Your task to perform on an android device: Open Google Chrome Image 0: 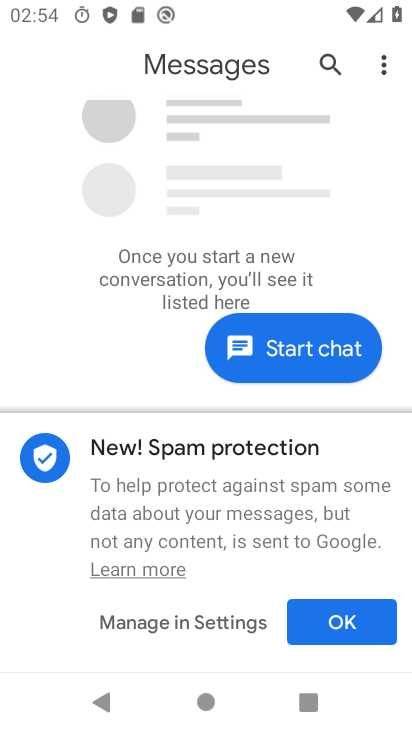
Step 0: press home button
Your task to perform on an android device: Open Google Chrome Image 1: 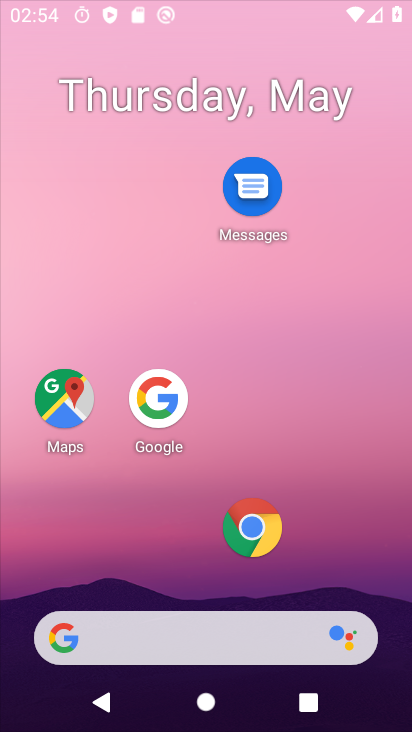
Step 1: drag from (260, 368) to (266, 183)
Your task to perform on an android device: Open Google Chrome Image 2: 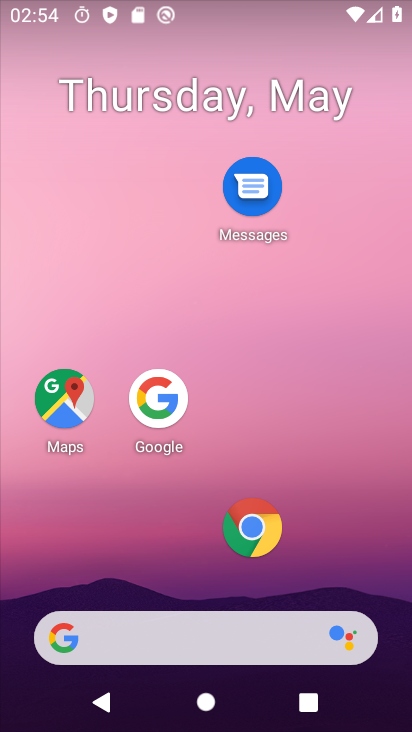
Step 2: drag from (222, 530) to (227, 159)
Your task to perform on an android device: Open Google Chrome Image 3: 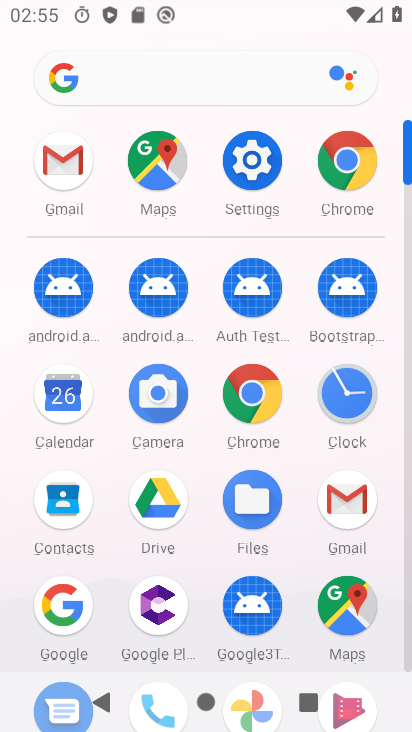
Step 3: drag from (195, 574) to (176, 237)
Your task to perform on an android device: Open Google Chrome Image 4: 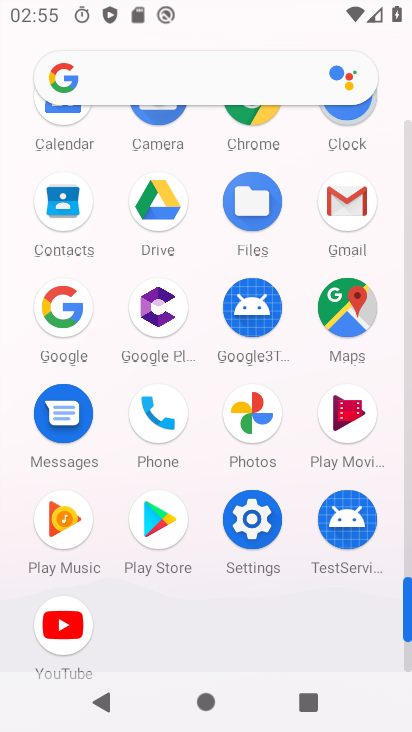
Step 4: click (251, 123)
Your task to perform on an android device: Open Google Chrome Image 5: 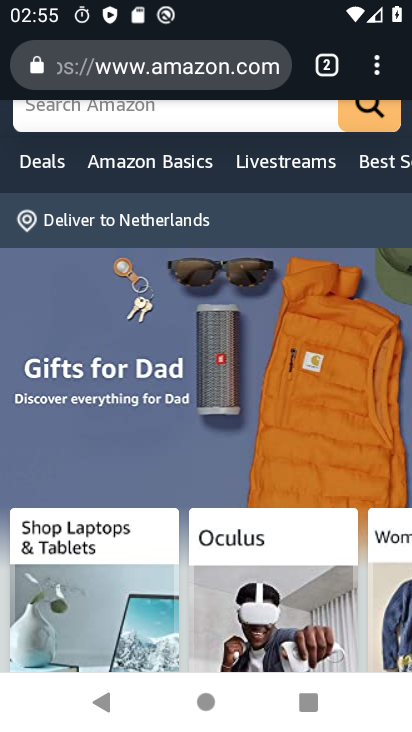
Step 5: task complete